Your task to perform on an android device: Show me popular videos on Youtube Image 0: 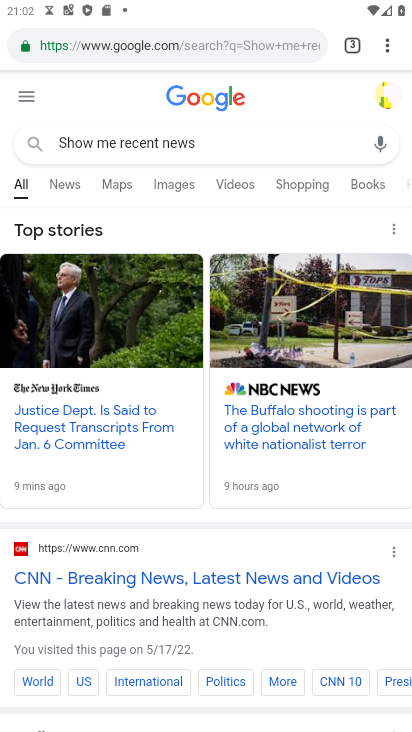
Step 0: press home button
Your task to perform on an android device: Show me popular videos on Youtube Image 1: 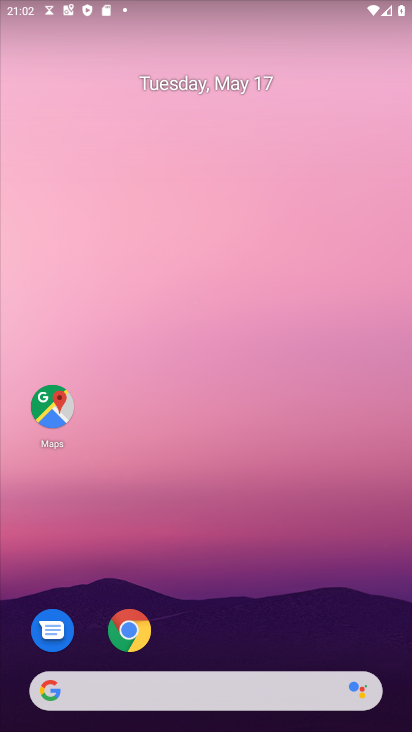
Step 1: drag from (179, 613) to (180, 95)
Your task to perform on an android device: Show me popular videos on Youtube Image 2: 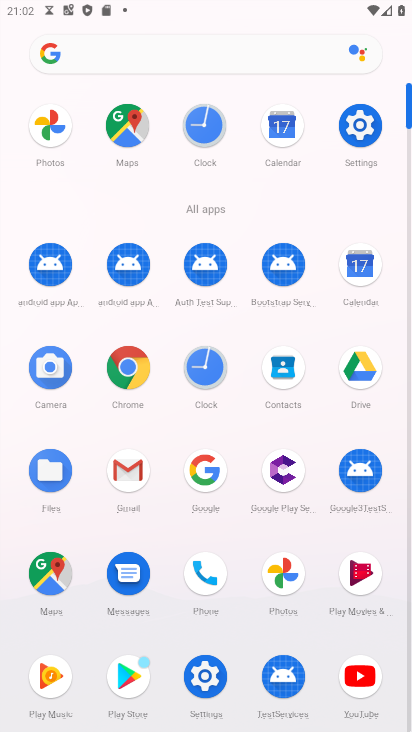
Step 2: click (365, 672)
Your task to perform on an android device: Show me popular videos on Youtube Image 3: 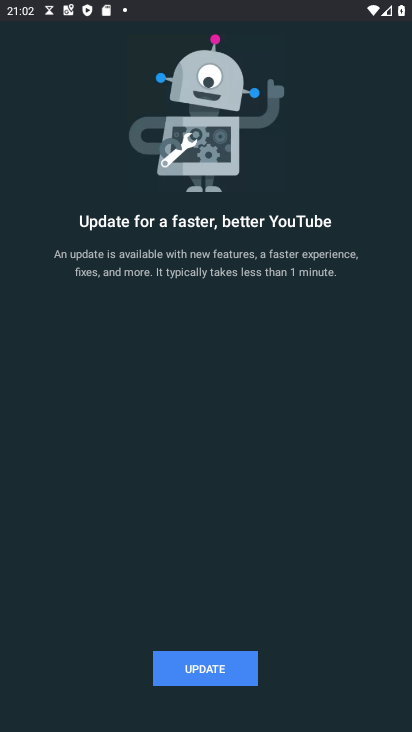
Step 3: click (176, 664)
Your task to perform on an android device: Show me popular videos on Youtube Image 4: 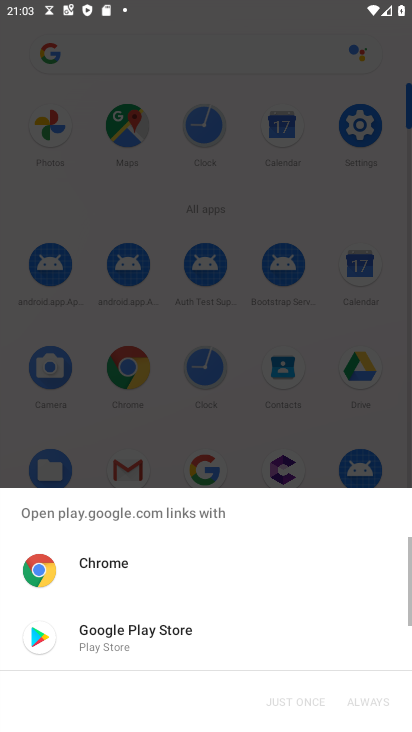
Step 4: click (102, 636)
Your task to perform on an android device: Show me popular videos on Youtube Image 5: 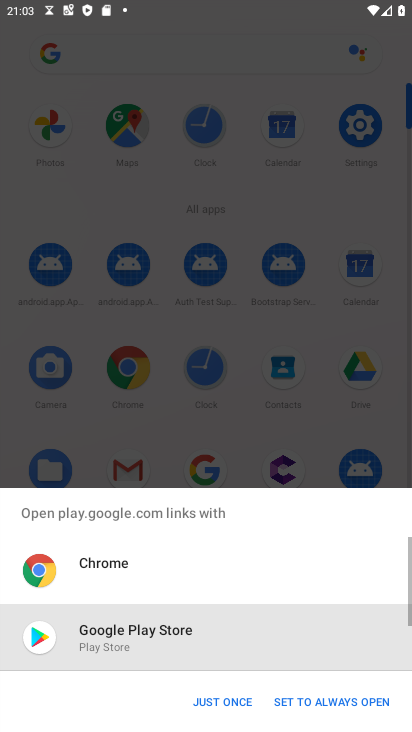
Step 5: click (240, 684)
Your task to perform on an android device: Show me popular videos on Youtube Image 6: 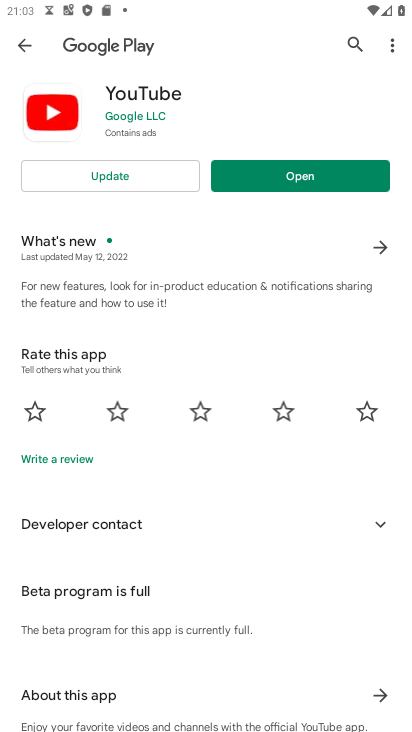
Step 6: click (156, 183)
Your task to perform on an android device: Show me popular videos on Youtube Image 7: 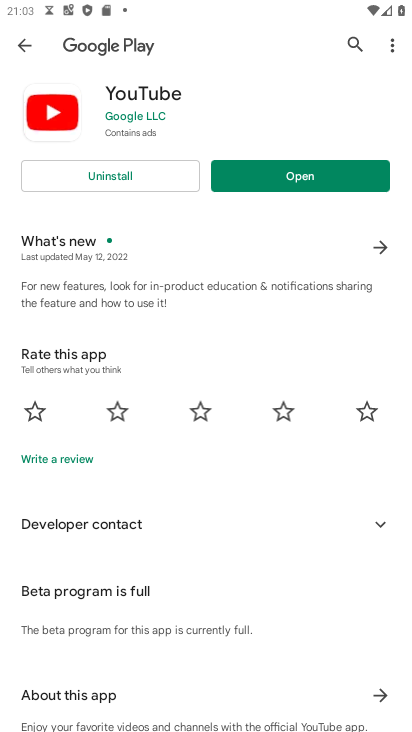
Step 7: click (278, 187)
Your task to perform on an android device: Show me popular videos on Youtube Image 8: 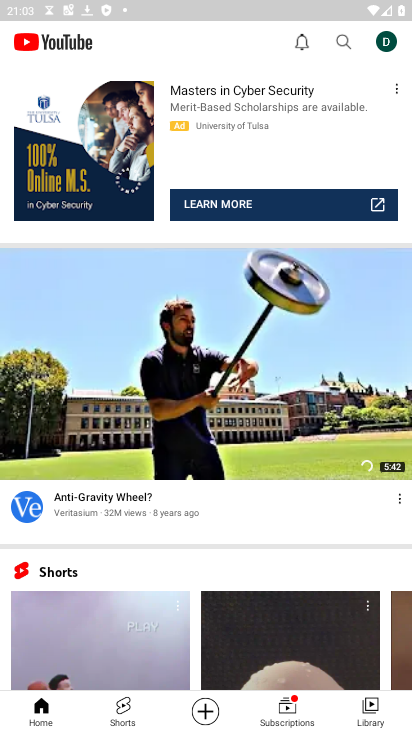
Step 8: drag from (111, 159) to (78, 421)
Your task to perform on an android device: Show me popular videos on Youtube Image 9: 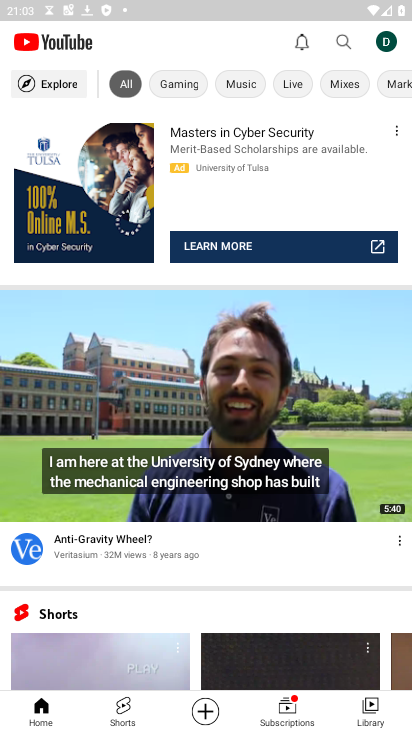
Step 9: click (53, 90)
Your task to perform on an android device: Show me popular videos on Youtube Image 10: 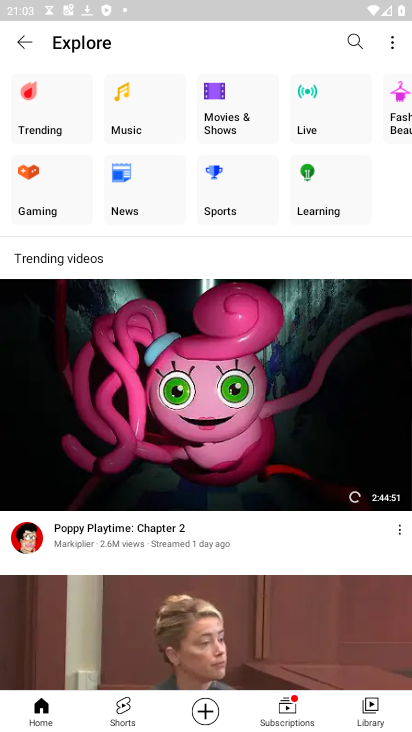
Step 10: click (47, 122)
Your task to perform on an android device: Show me popular videos on Youtube Image 11: 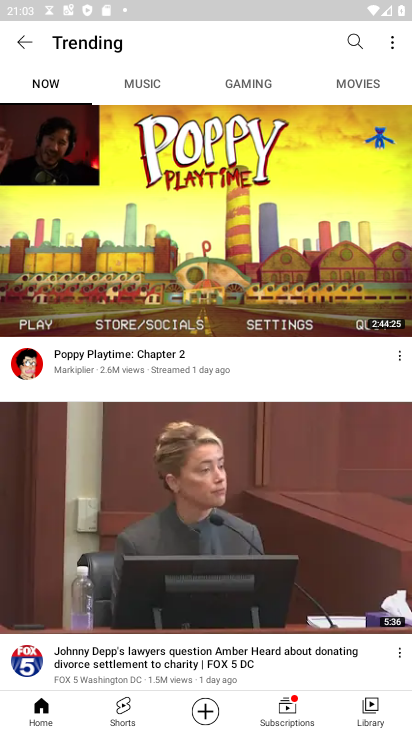
Step 11: task complete